Your task to perform on an android device: Open the calendar app, open the side menu, and click the "Day" option Image 0: 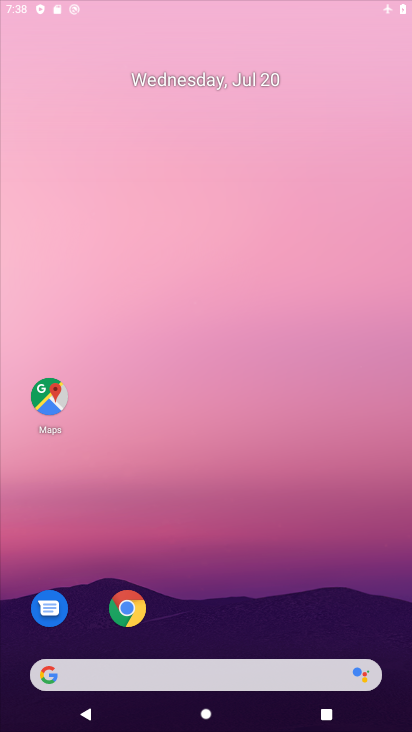
Step 0: click (238, 94)
Your task to perform on an android device: Open the calendar app, open the side menu, and click the "Day" option Image 1: 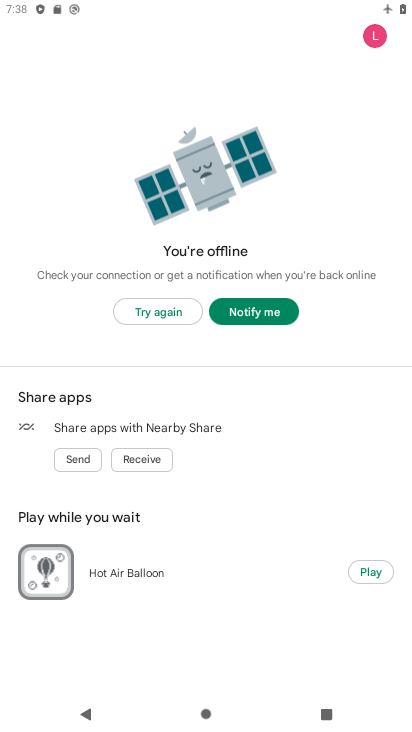
Step 1: press home button
Your task to perform on an android device: Open the calendar app, open the side menu, and click the "Day" option Image 2: 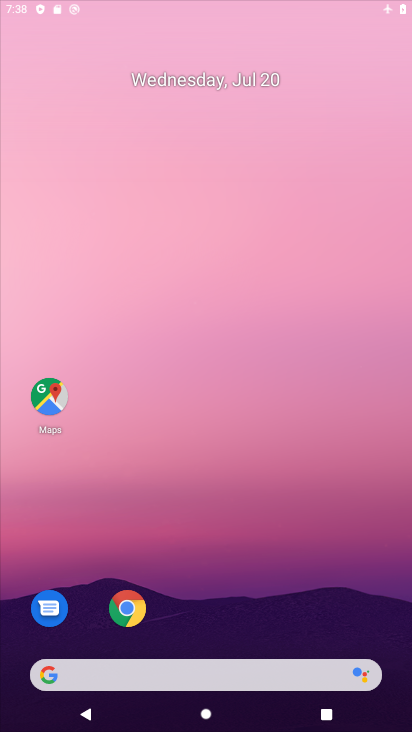
Step 2: drag from (288, 572) to (192, 72)
Your task to perform on an android device: Open the calendar app, open the side menu, and click the "Day" option Image 3: 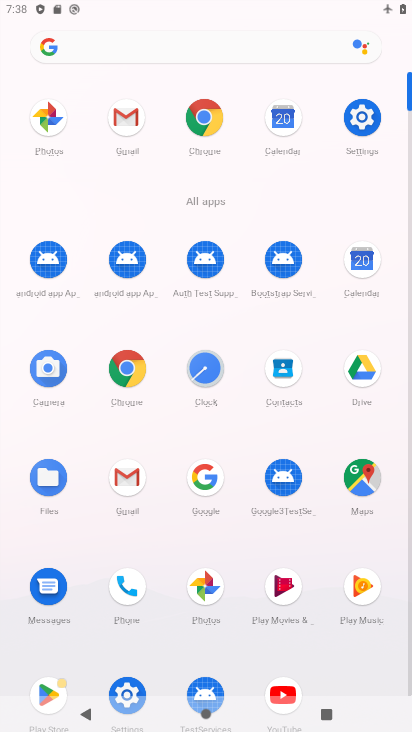
Step 3: click (368, 249)
Your task to perform on an android device: Open the calendar app, open the side menu, and click the "Day" option Image 4: 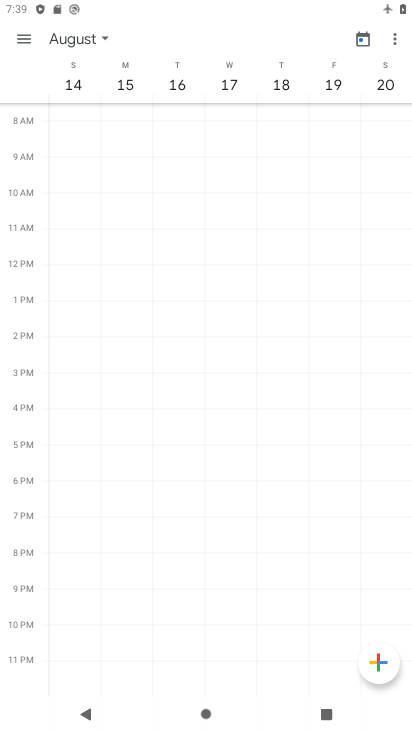
Step 4: click (22, 42)
Your task to perform on an android device: Open the calendar app, open the side menu, and click the "Day" option Image 5: 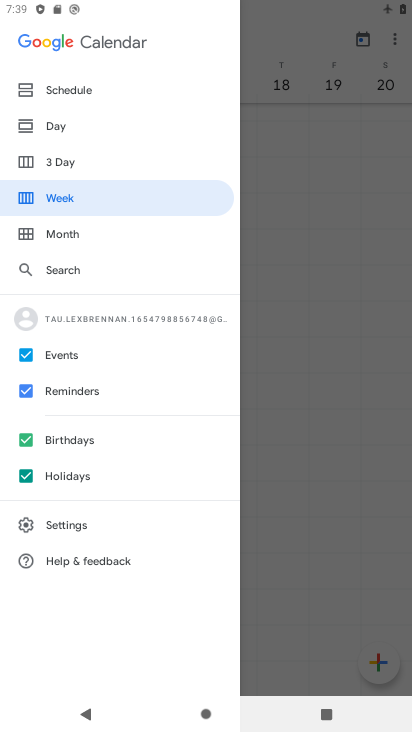
Step 5: click (48, 127)
Your task to perform on an android device: Open the calendar app, open the side menu, and click the "Day" option Image 6: 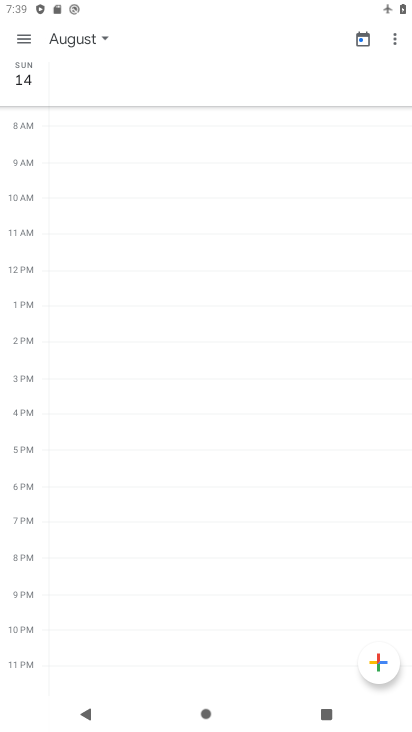
Step 6: task complete